Your task to perform on an android device: Toggle the flashlight Image 0: 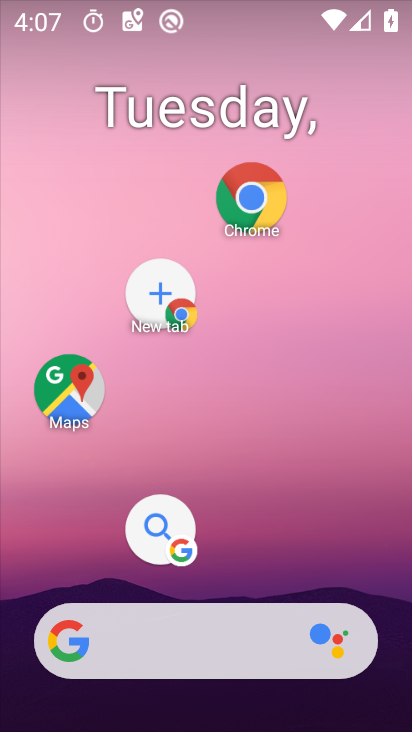
Step 0: drag from (244, 7) to (203, 381)
Your task to perform on an android device: Toggle the flashlight Image 1: 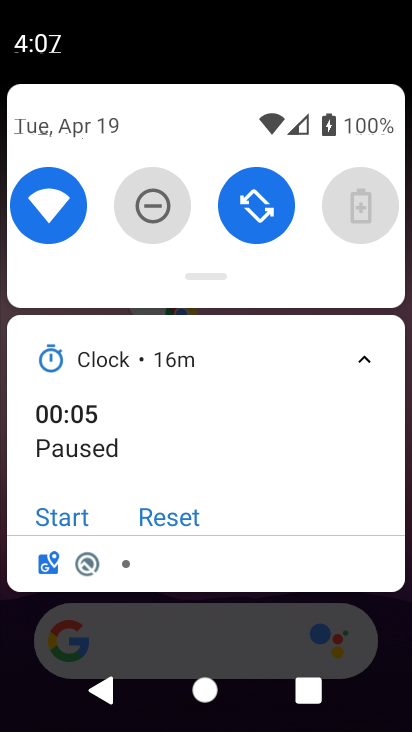
Step 1: drag from (231, 350) to (247, 512)
Your task to perform on an android device: Toggle the flashlight Image 2: 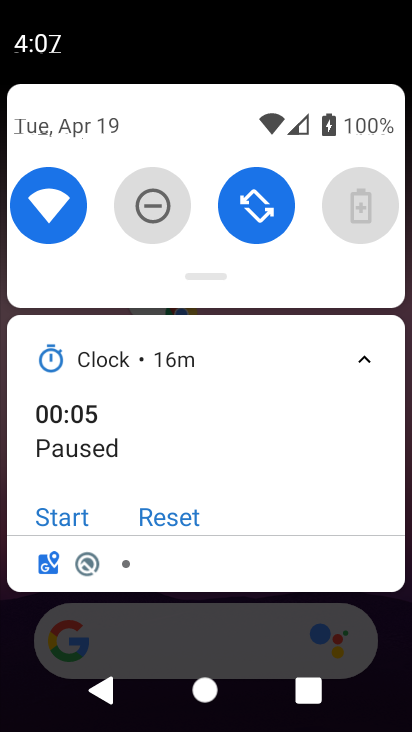
Step 2: drag from (260, 227) to (250, 469)
Your task to perform on an android device: Toggle the flashlight Image 3: 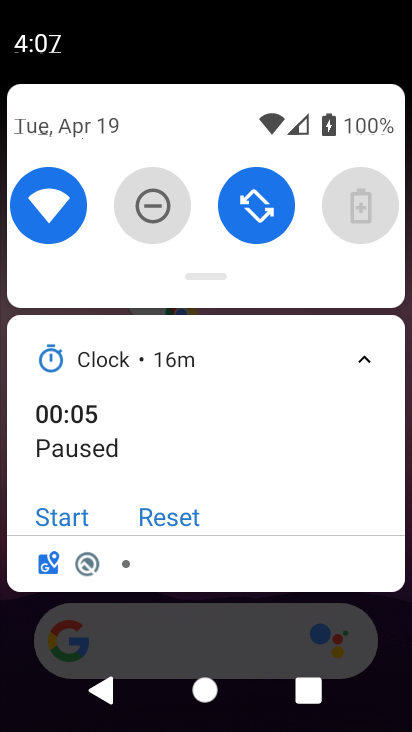
Step 3: drag from (223, 184) to (224, 451)
Your task to perform on an android device: Toggle the flashlight Image 4: 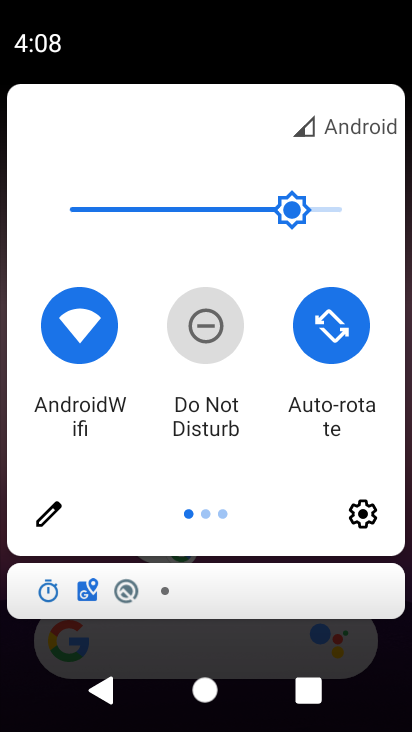
Step 4: drag from (348, 406) to (7, 389)
Your task to perform on an android device: Toggle the flashlight Image 5: 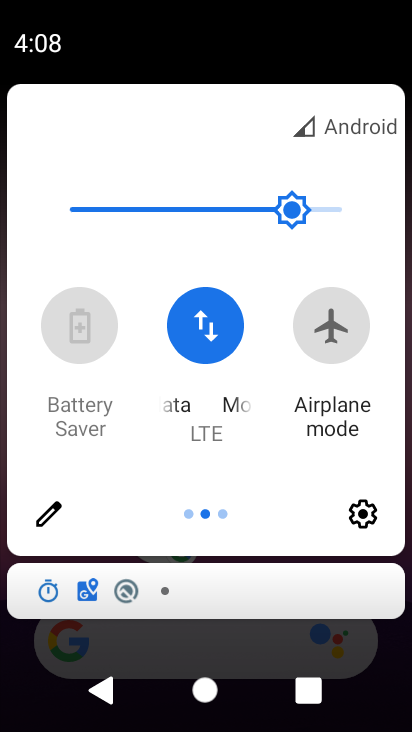
Step 5: drag from (136, 399) to (31, 442)
Your task to perform on an android device: Toggle the flashlight Image 6: 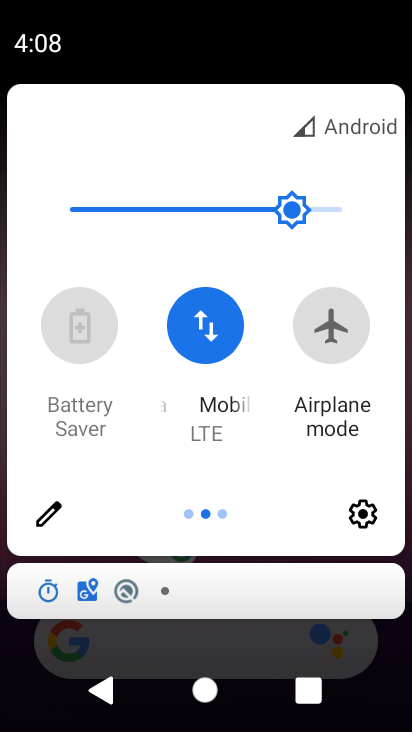
Step 6: drag from (340, 435) to (7, 441)
Your task to perform on an android device: Toggle the flashlight Image 7: 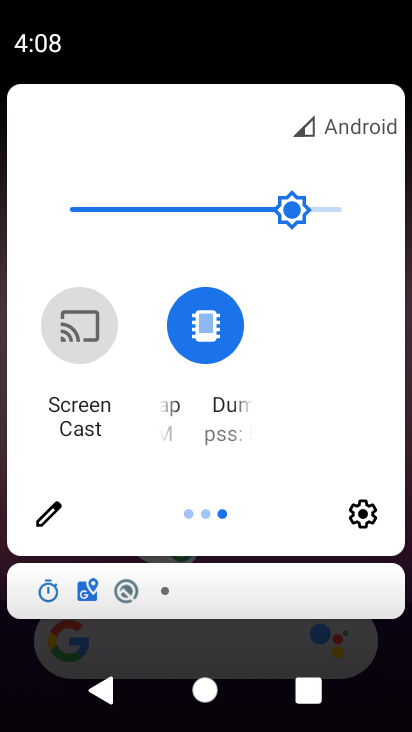
Step 7: click (52, 502)
Your task to perform on an android device: Toggle the flashlight Image 8: 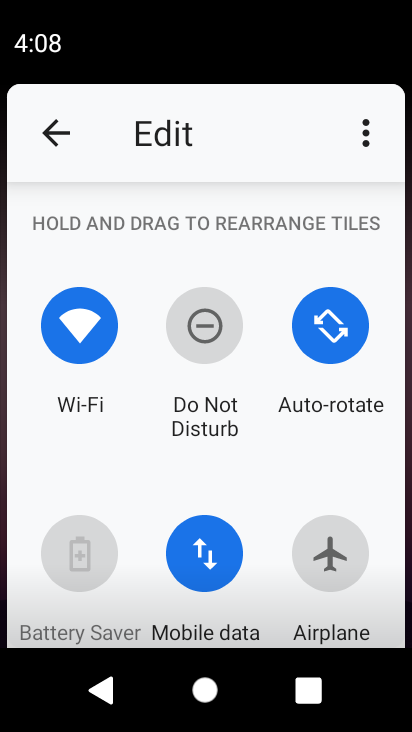
Step 8: task complete